Your task to perform on an android device: Open Wikipedia Image 0: 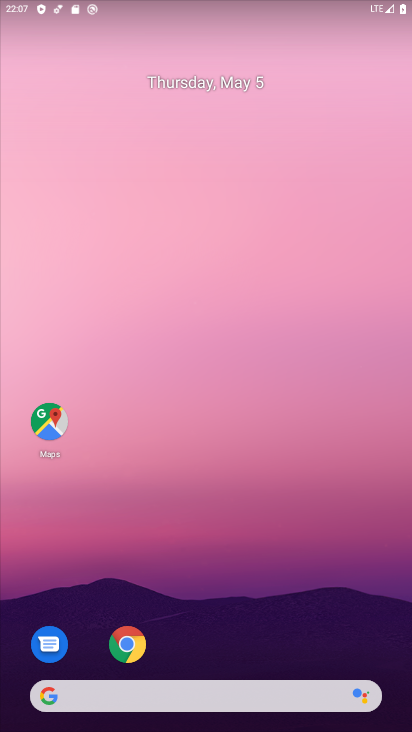
Step 0: click (128, 647)
Your task to perform on an android device: Open Wikipedia Image 1: 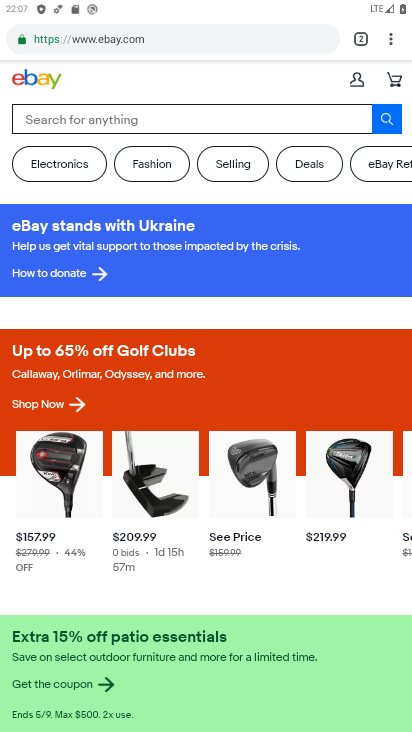
Step 1: click (355, 44)
Your task to perform on an android device: Open Wikipedia Image 2: 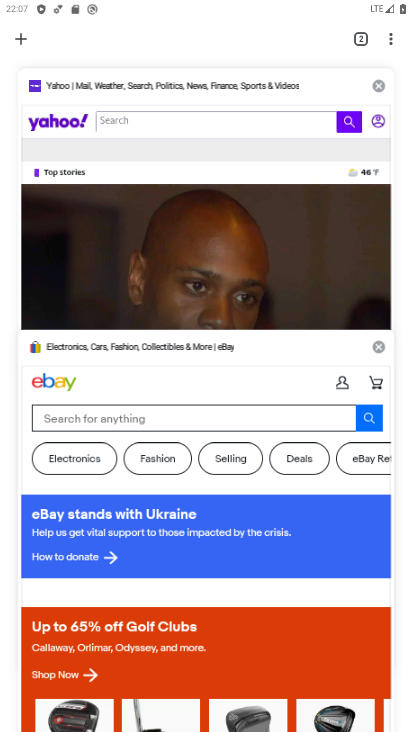
Step 2: click (18, 42)
Your task to perform on an android device: Open Wikipedia Image 3: 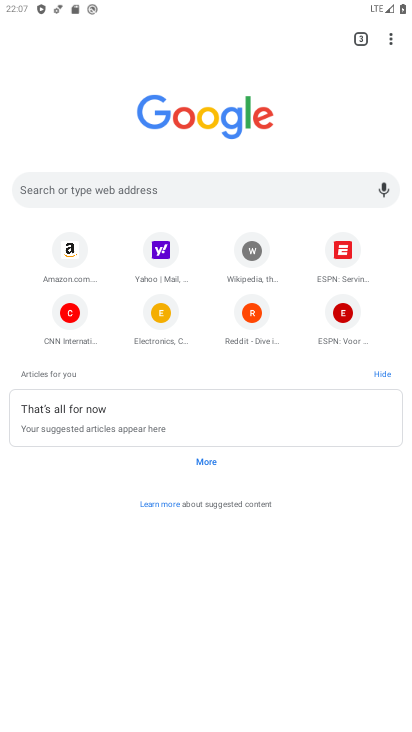
Step 3: click (247, 258)
Your task to perform on an android device: Open Wikipedia Image 4: 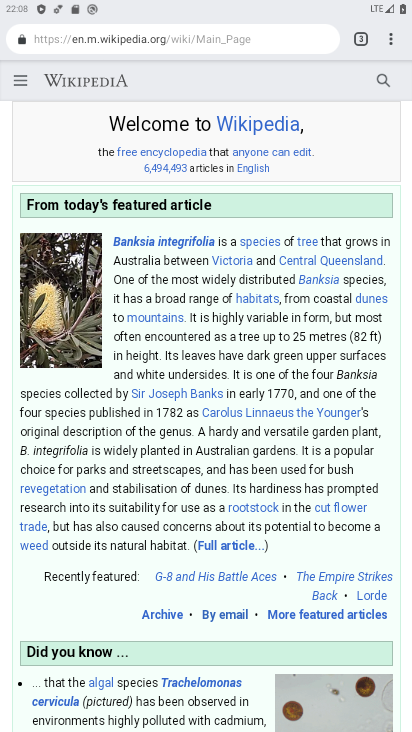
Step 4: task complete